Your task to perform on an android device: turn pop-ups on in chrome Image 0: 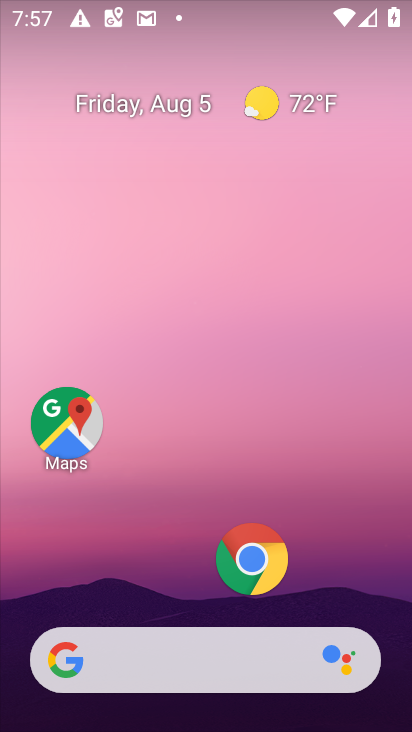
Step 0: click (267, 549)
Your task to perform on an android device: turn pop-ups on in chrome Image 1: 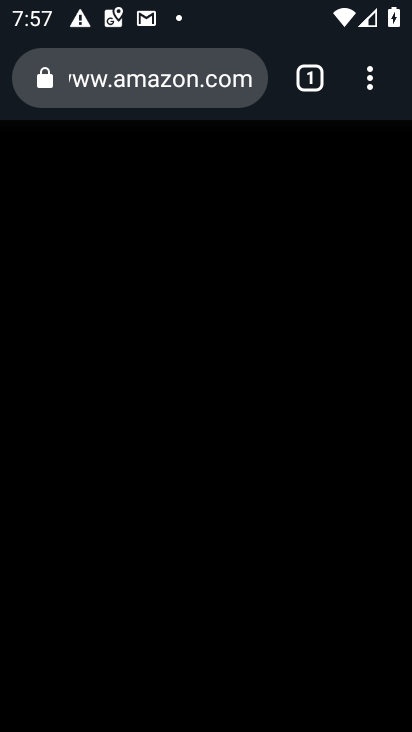
Step 1: click (361, 65)
Your task to perform on an android device: turn pop-ups on in chrome Image 2: 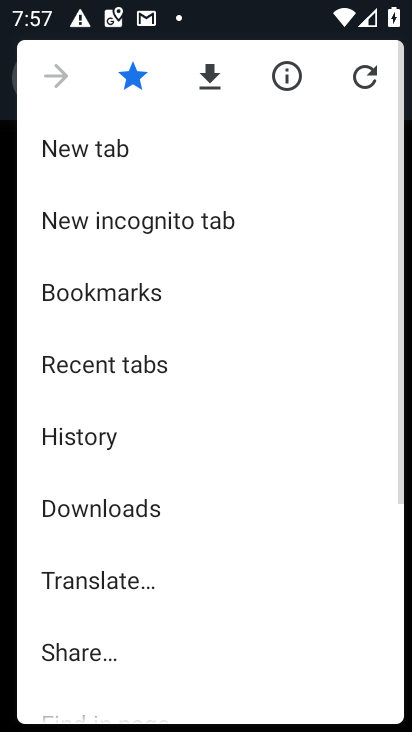
Step 2: drag from (93, 608) to (109, 207)
Your task to perform on an android device: turn pop-ups on in chrome Image 3: 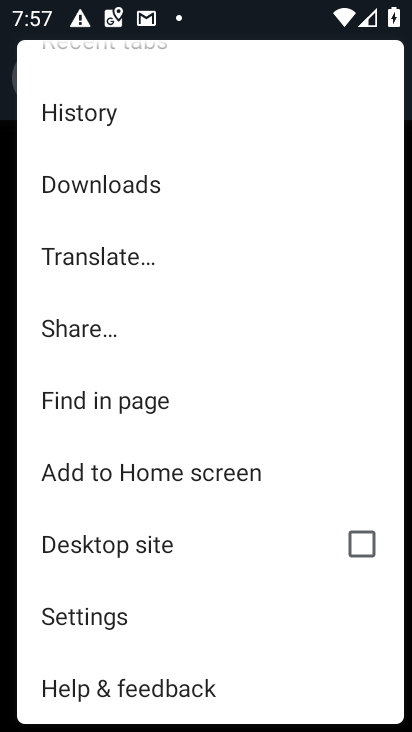
Step 3: click (96, 621)
Your task to perform on an android device: turn pop-ups on in chrome Image 4: 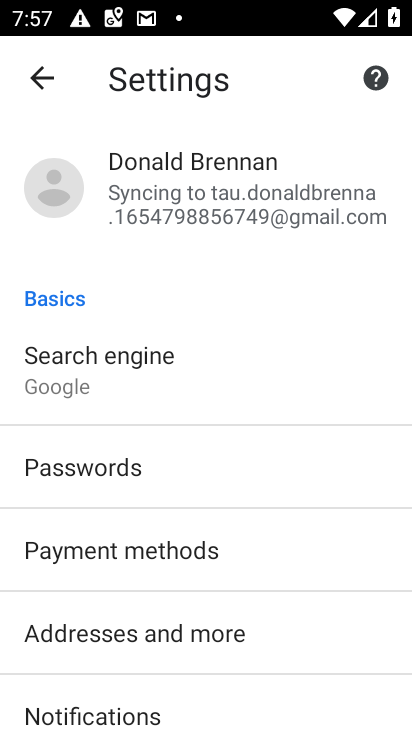
Step 4: drag from (146, 632) to (142, 244)
Your task to perform on an android device: turn pop-ups on in chrome Image 5: 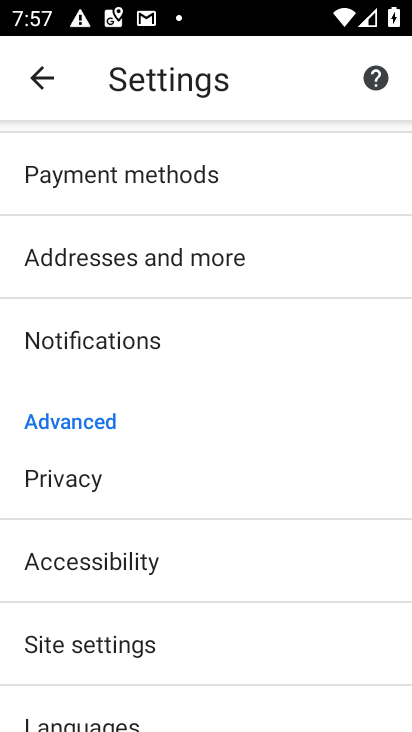
Step 5: click (107, 648)
Your task to perform on an android device: turn pop-ups on in chrome Image 6: 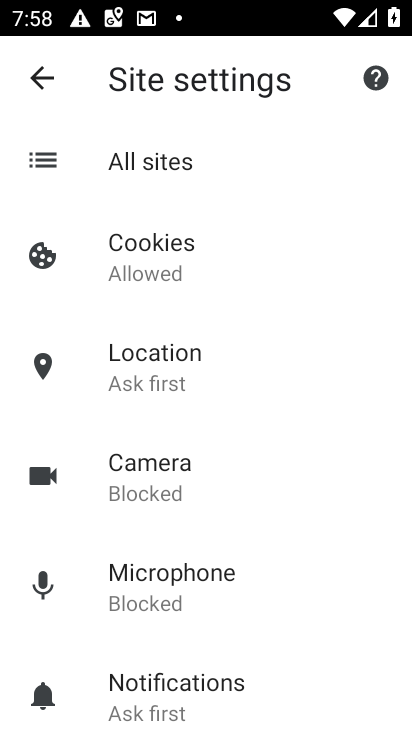
Step 6: drag from (176, 638) to (189, 226)
Your task to perform on an android device: turn pop-ups on in chrome Image 7: 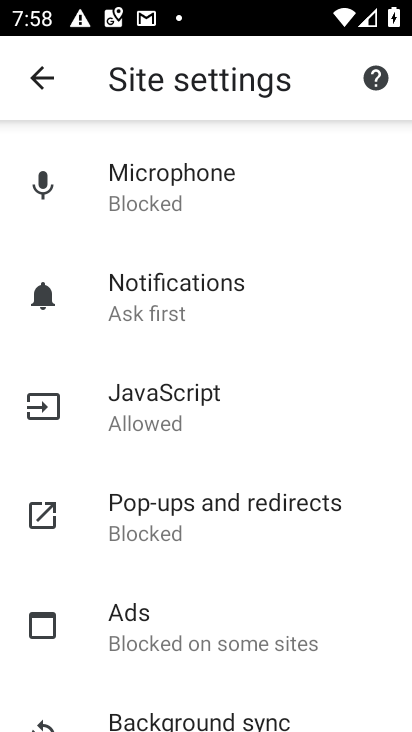
Step 7: click (167, 524)
Your task to perform on an android device: turn pop-ups on in chrome Image 8: 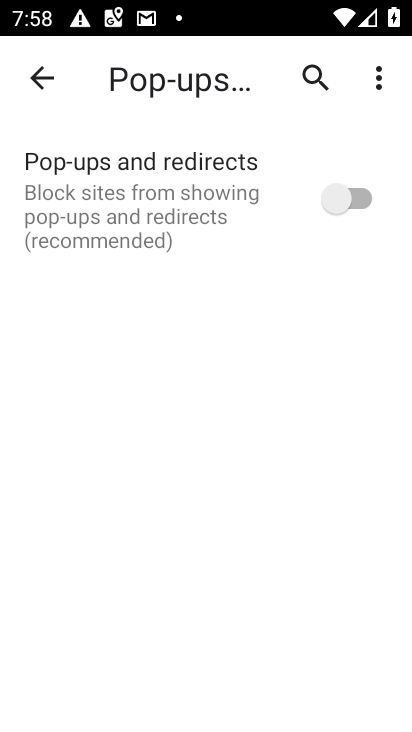
Step 8: click (379, 192)
Your task to perform on an android device: turn pop-ups on in chrome Image 9: 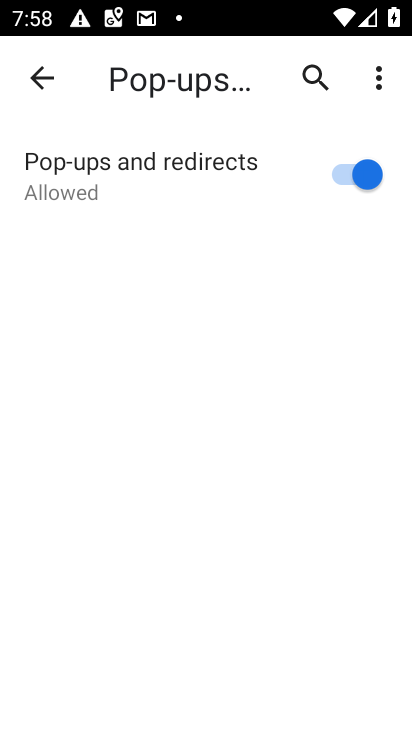
Step 9: task complete